Your task to perform on an android device: Go to Wikipedia Image 0: 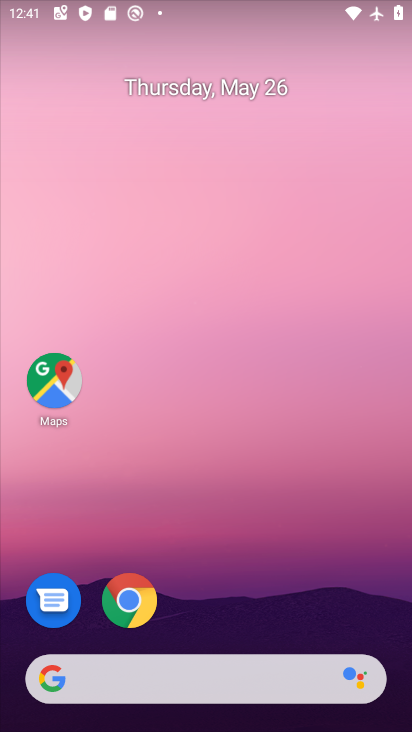
Step 0: drag from (230, 584) to (259, 173)
Your task to perform on an android device: Go to Wikipedia Image 1: 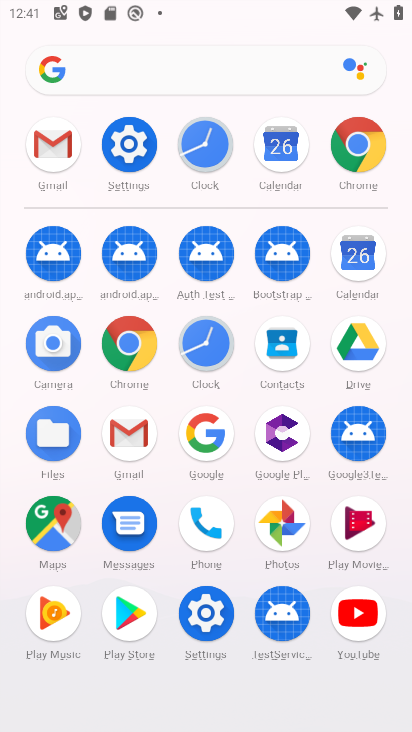
Step 1: click (135, 349)
Your task to perform on an android device: Go to Wikipedia Image 2: 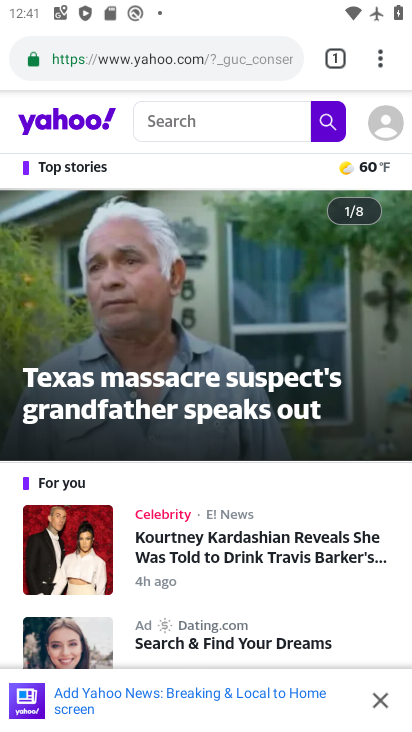
Step 2: click (113, 44)
Your task to perform on an android device: Go to Wikipedia Image 3: 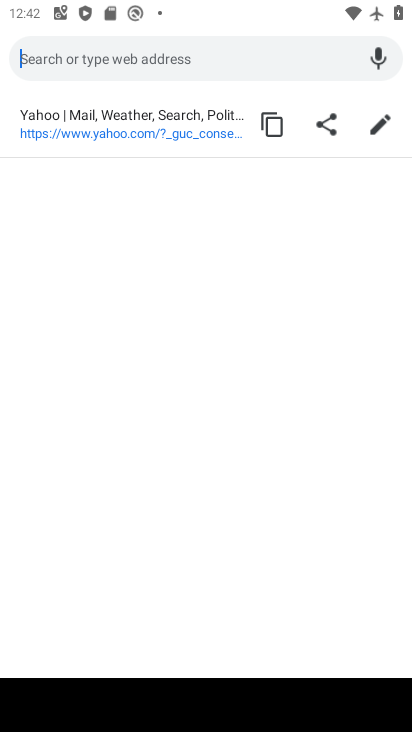
Step 3: type "wikipedia"
Your task to perform on an android device: Go to Wikipedia Image 4: 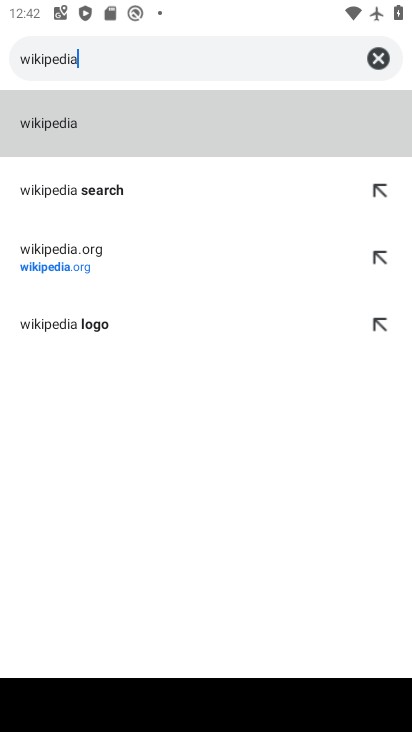
Step 4: click (45, 261)
Your task to perform on an android device: Go to Wikipedia Image 5: 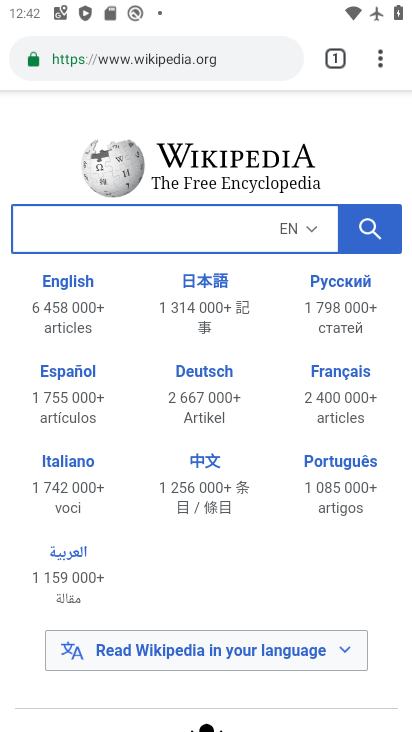
Step 5: task complete